Your task to perform on an android device: turn on javascript in the chrome app Image 0: 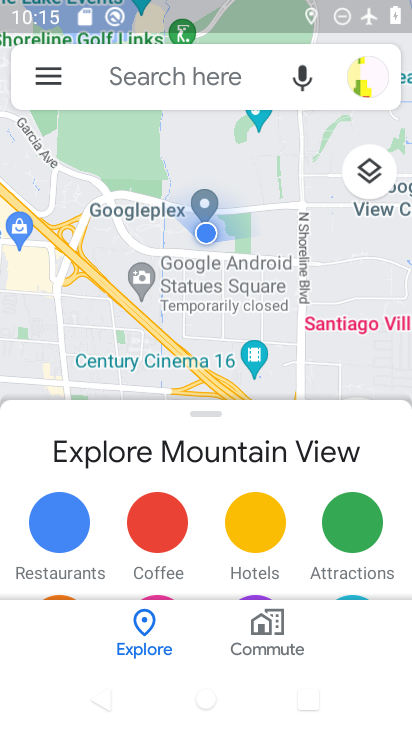
Step 0: press home button
Your task to perform on an android device: turn on javascript in the chrome app Image 1: 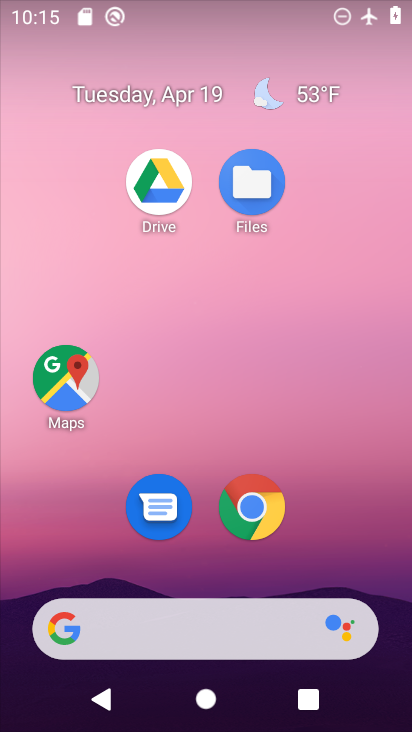
Step 1: click (253, 509)
Your task to perform on an android device: turn on javascript in the chrome app Image 2: 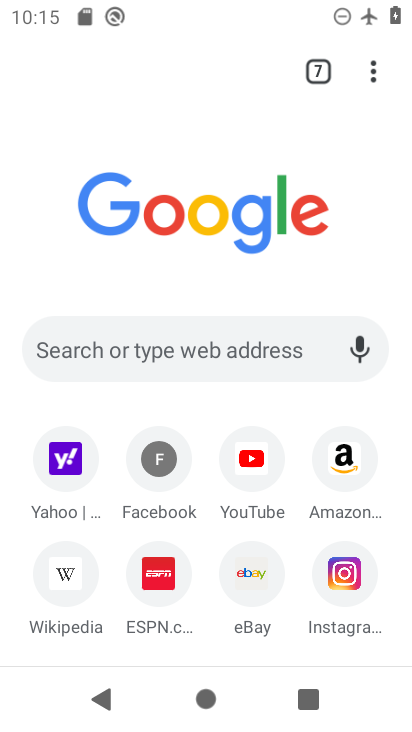
Step 2: drag from (369, 74) to (243, 520)
Your task to perform on an android device: turn on javascript in the chrome app Image 3: 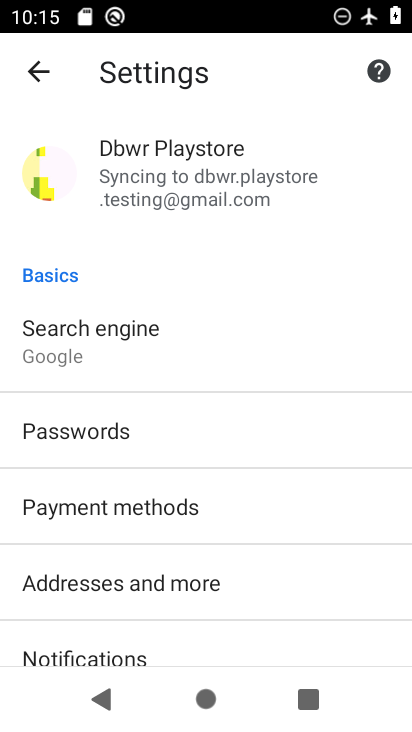
Step 3: drag from (260, 601) to (279, 132)
Your task to perform on an android device: turn on javascript in the chrome app Image 4: 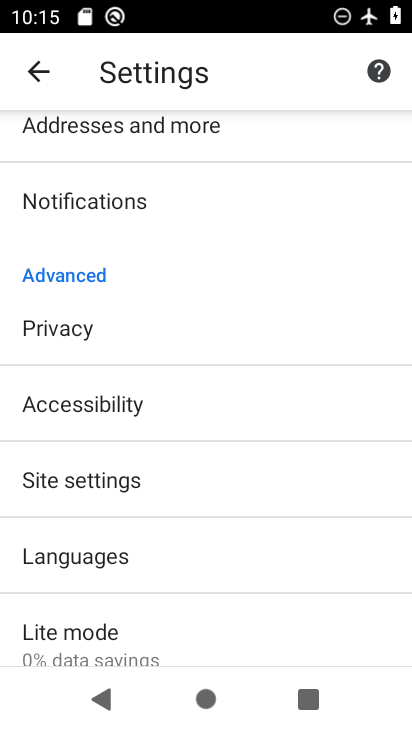
Step 4: click (171, 488)
Your task to perform on an android device: turn on javascript in the chrome app Image 5: 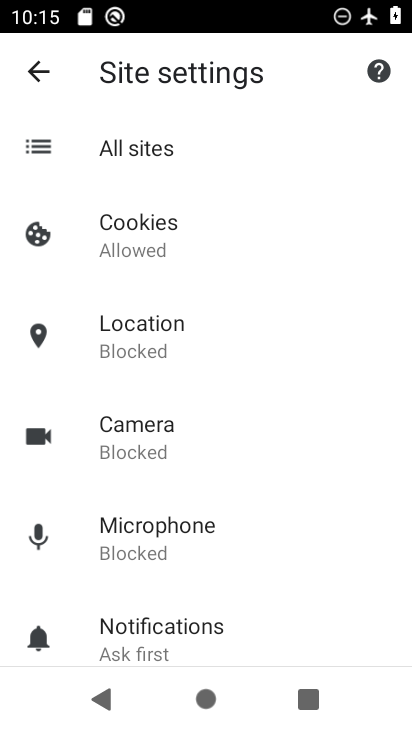
Step 5: drag from (243, 559) to (269, 152)
Your task to perform on an android device: turn on javascript in the chrome app Image 6: 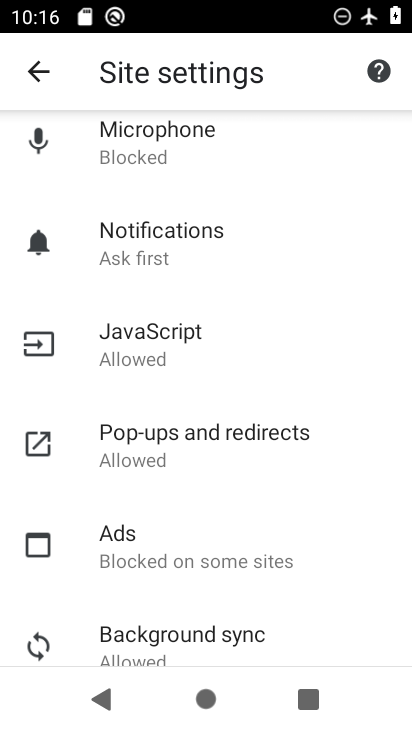
Step 6: click (202, 342)
Your task to perform on an android device: turn on javascript in the chrome app Image 7: 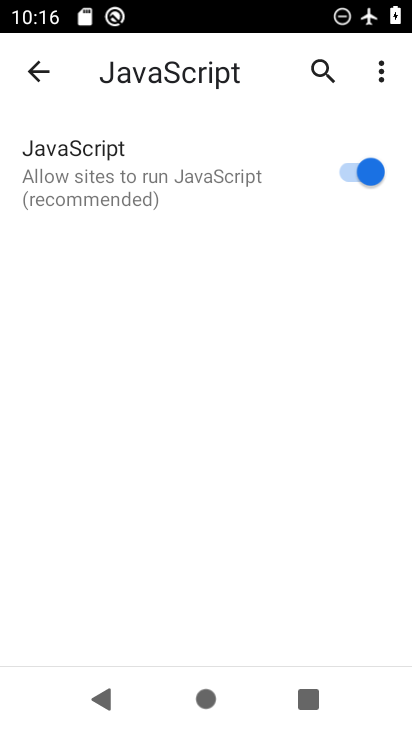
Step 7: task complete